Your task to perform on an android device: Search for sushi restaurants on Maps Image 0: 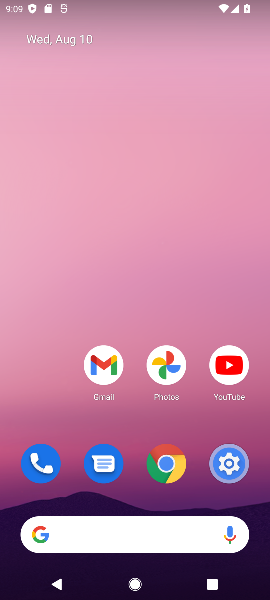
Step 0: drag from (7, 530) to (52, 348)
Your task to perform on an android device: Search for sushi restaurants on Maps Image 1: 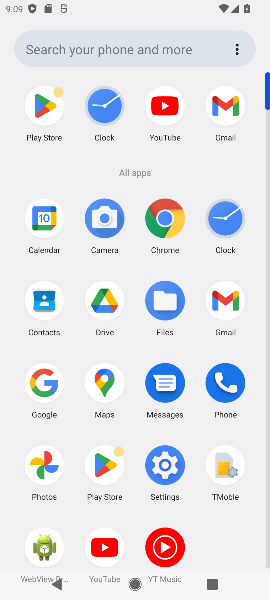
Step 1: click (111, 390)
Your task to perform on an android device: Search for sushi restaurants on Maps Image 2: 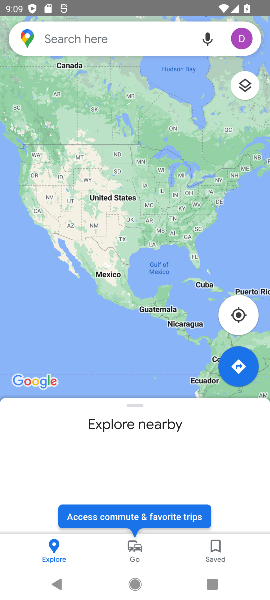
Step 2: click (108, 44)
Your task to perform on an android device: Search for sushi restaurants on Maps Image 3: 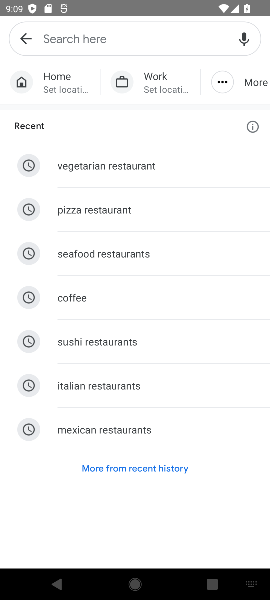
Step 3: type "sushi restaurants"
Your task to perform on an android device: Search for sushi restaurants on Maps Image 4: 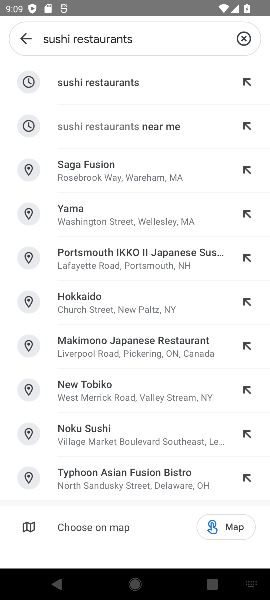
Step 4: click (136, 79)
Your task to perform on an android device: Search for sushi restaurants on Maps Image 5: 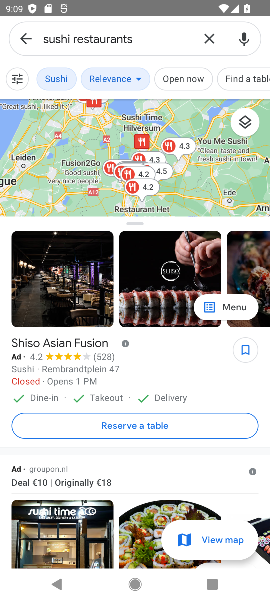
Step 5: task complete